Your task to perform on an android device: Open internet settings Image 0: 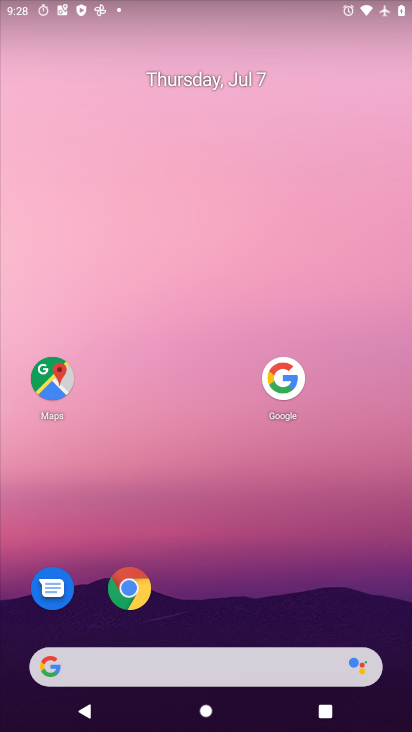
Step 0: drag from (134, 668) to (251, 3)
Your task to perform on an android device: Open internet settings Image 1: 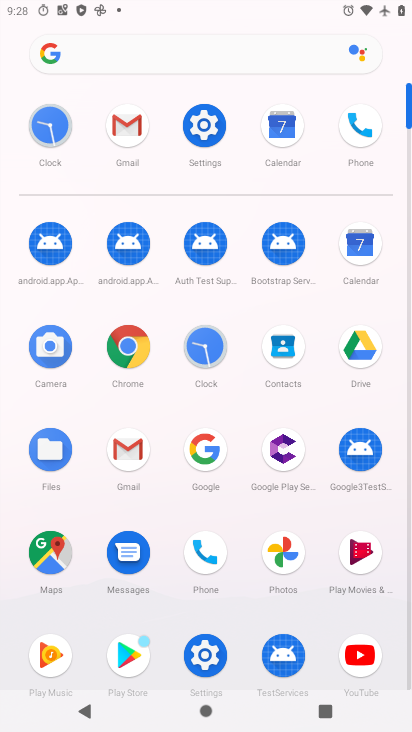
Step 1: click (203, 125)
Your task to perform on an android device: Open internet settings Image 2: 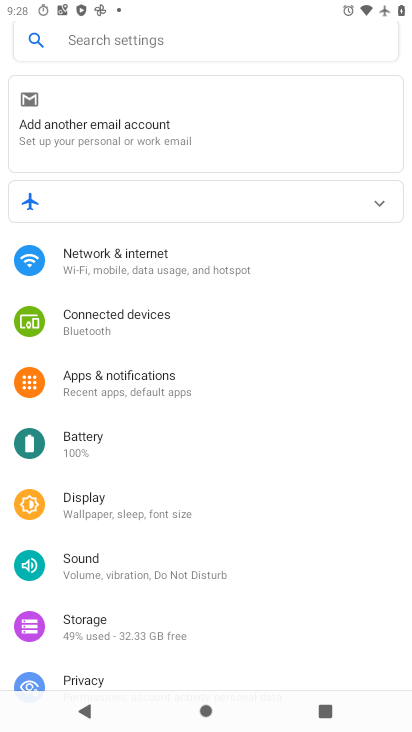
Step 2: click (149, 258)
Your task to perform on an android device: Open internet settings Image 3: 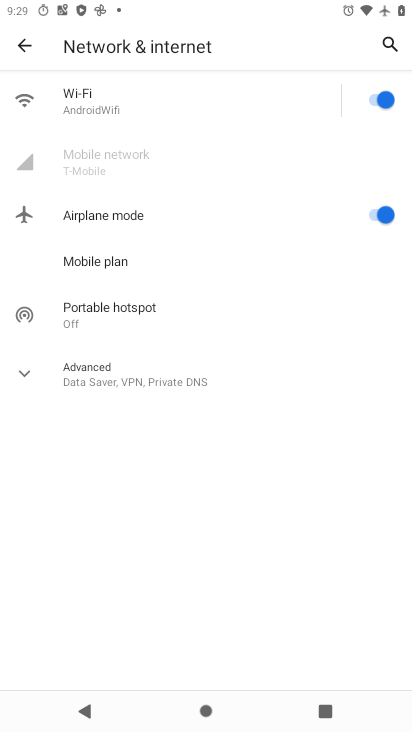
Step 3: task complete